Your task to perform on an android device: Go to ESPN.com Image 0: 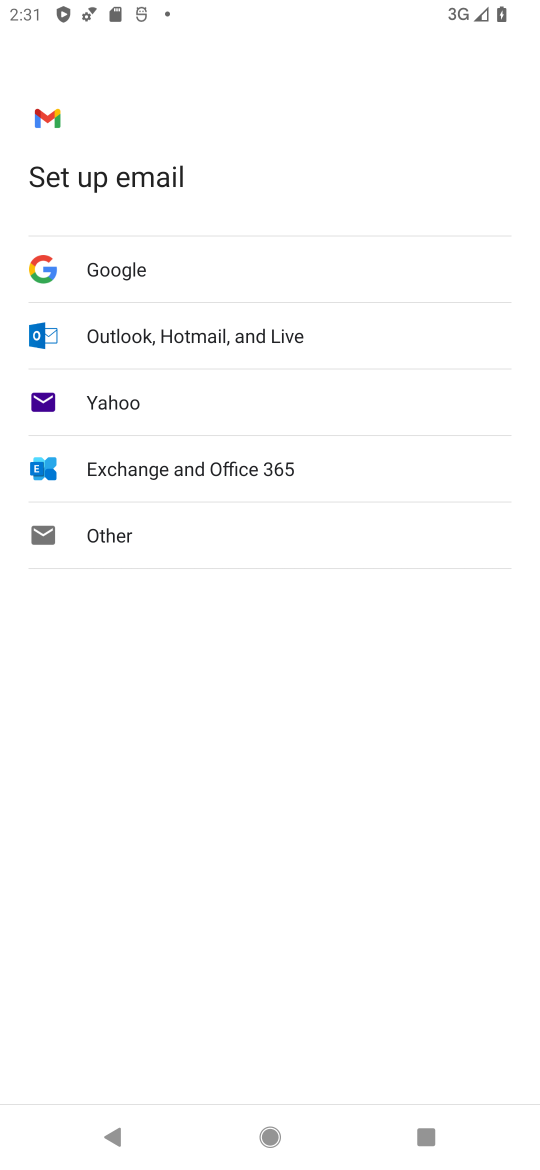
Step 0: press home button
Your task to perform on an android device: Go to ESPN.com Image 1: 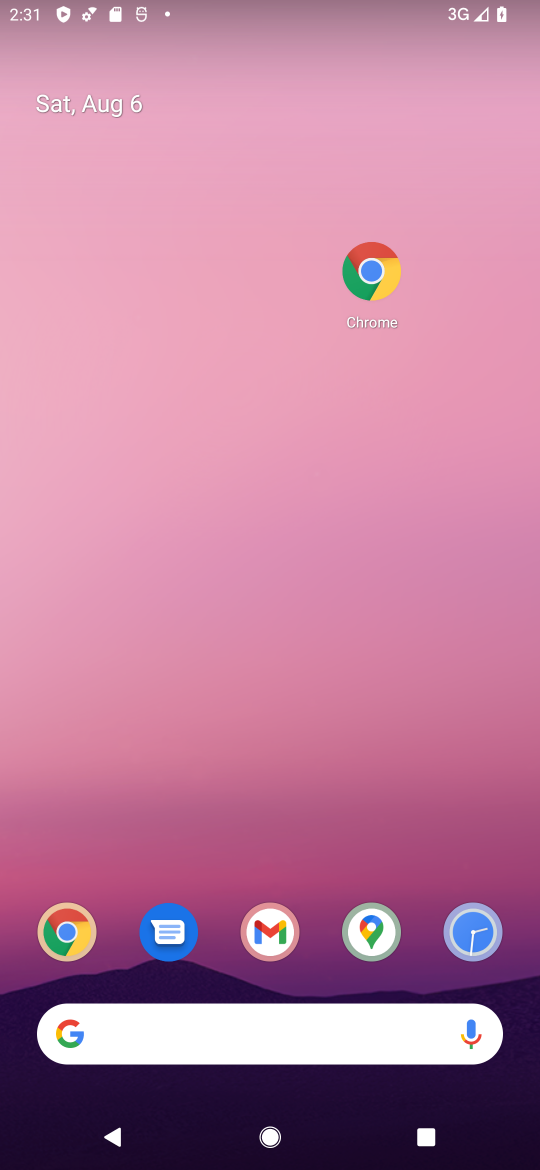
Step 1: drag from (182, 974) to (263, 213)
Your task to perform on an android device: Go to ESPN.com Image 2: 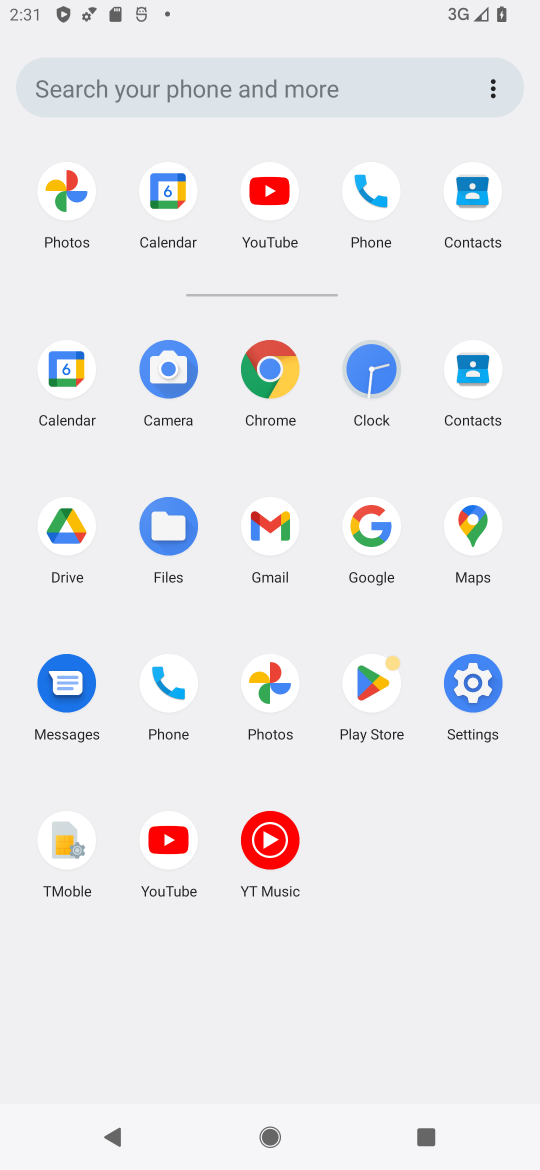
Step 2: click (267, 359)
Your task to perform on an android device: Go to ESPN.com Image 3: 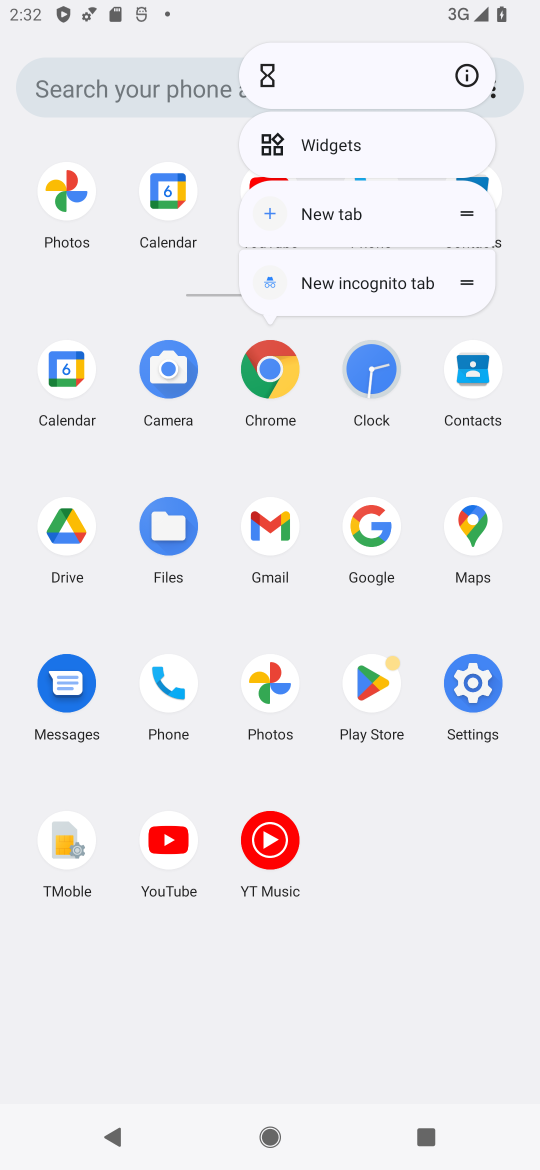
Step 3: click (262, 371)
Your task to perform on an android device: Go to ESPN.com Image 4: 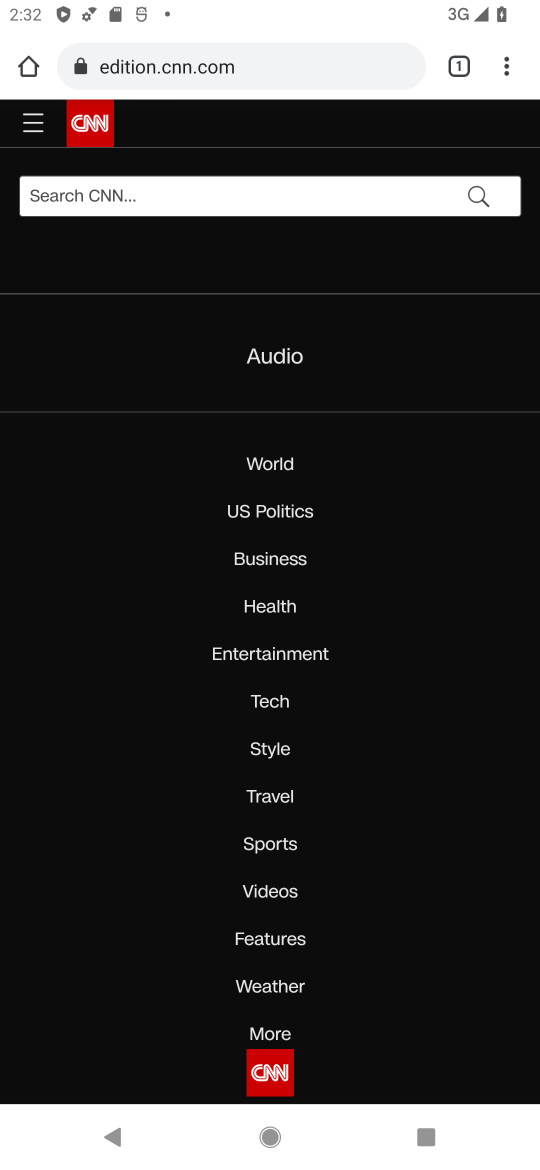
Step 4: click (213, 60)
Your task to perform on an android device: Go to ESPN.com Image 5: 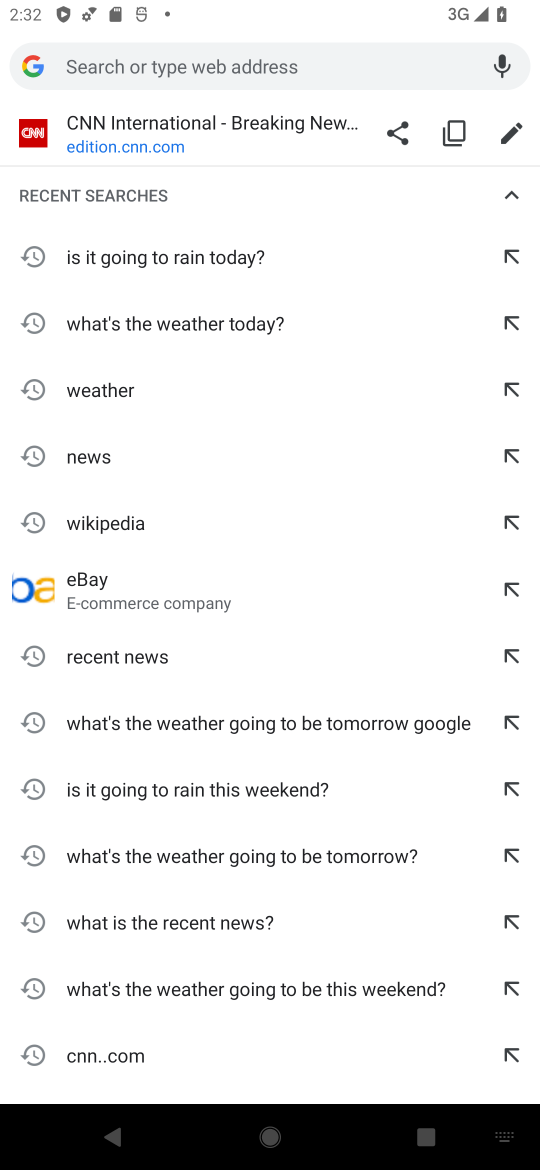
Step 5: type "ESPN.com"
Your task to perform on an android device: Go to ESPN.com Image 6: 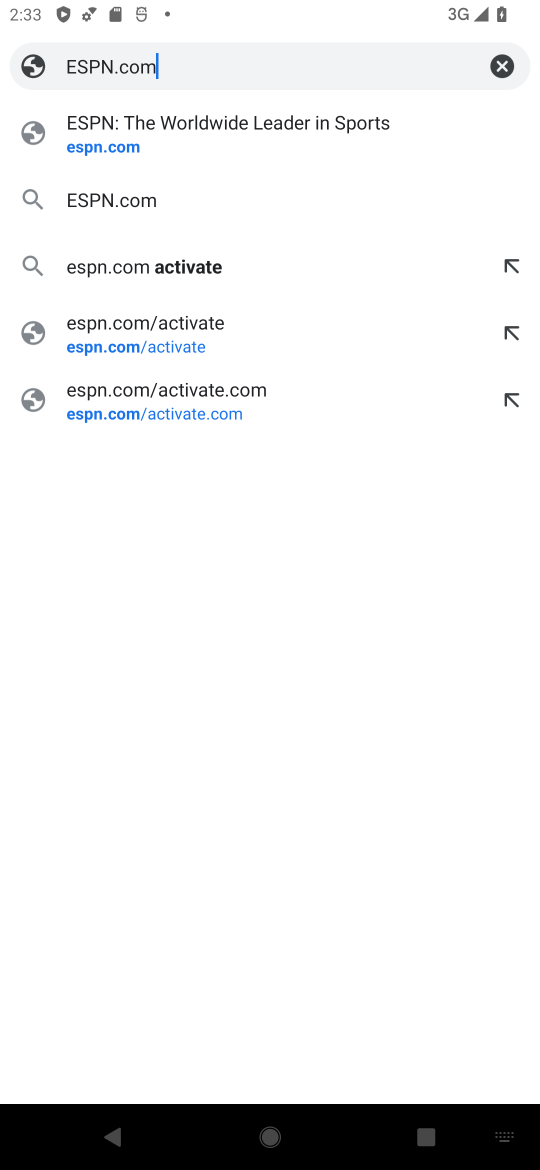
Step 6: click (108, 147)
Your task to perform on an android device: Go to ESPN.com Image 7: 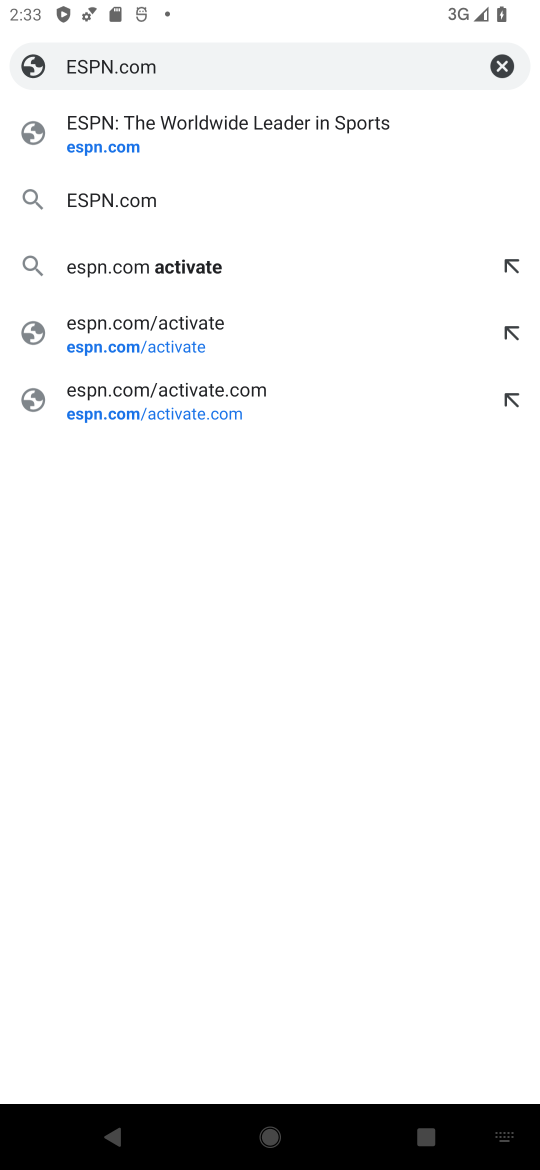
Step 7: click (122, 146)
Your task to perform on an android device: Go to ESPN.com Image 8: 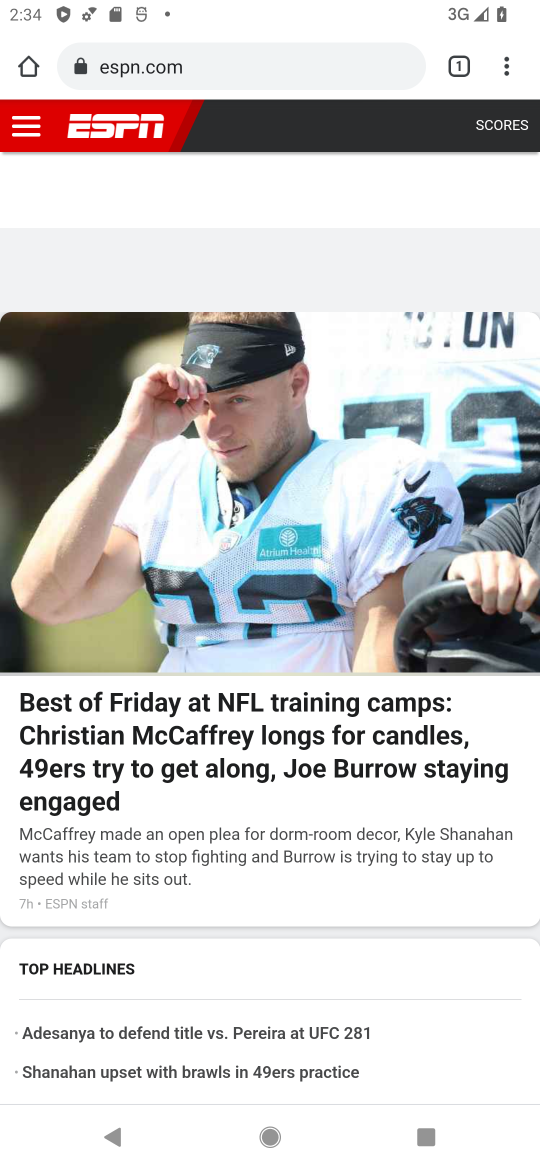
Step 8: task complete